Your task to perform on an android device: What's on my calendar tomorrow? Image 0: 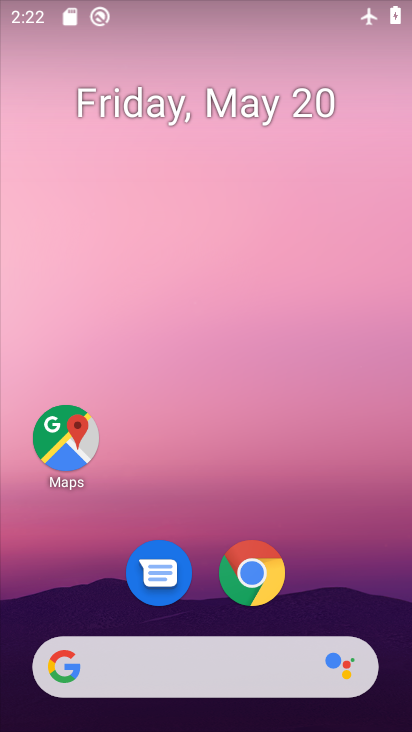
Step 0: drag from (201, 585) to (215, 158)
Your task to perform on an android device: What's on my calendar tomorrow? Image 1: 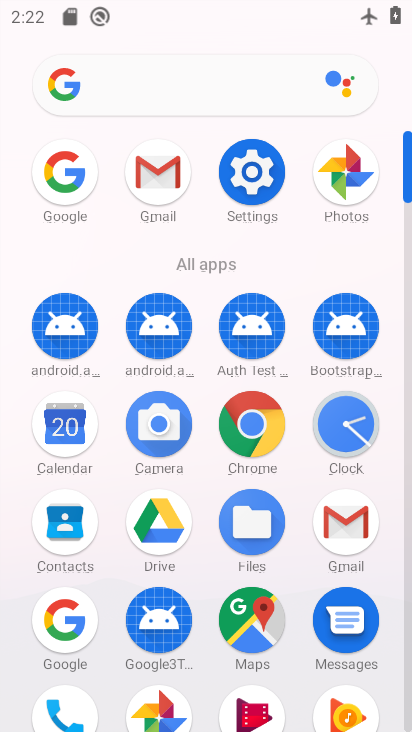
Step 1: click (62, 434)
Your task to perform on an android device: What's on my calendar tomorrow? Image 2: 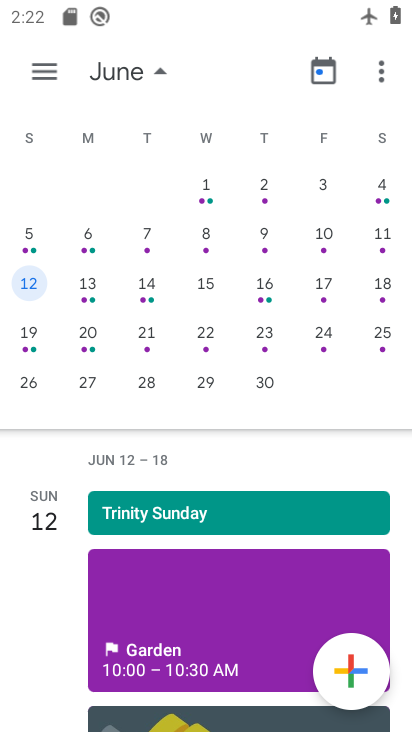
Step 2: drag from (92, 285) to (404, 286)
Your task to perform on an android device: What's on my calendar tomorrow? Image 3: 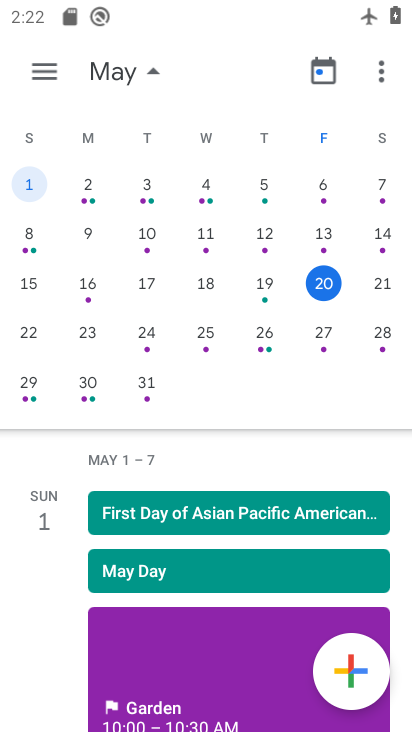
Step 3: click (391, 290)
Your task to perform on an android device: What's on my calendar tomorrow? Image 4: 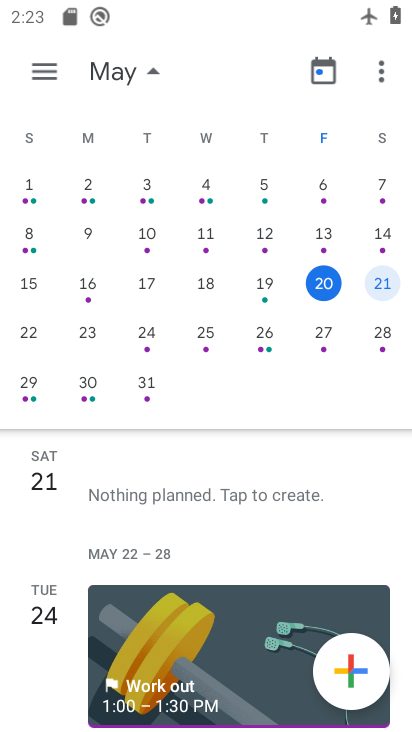
Step 4: task complete